Your task to perform on an android device: move an email to a new category in the gmail app Image 0: 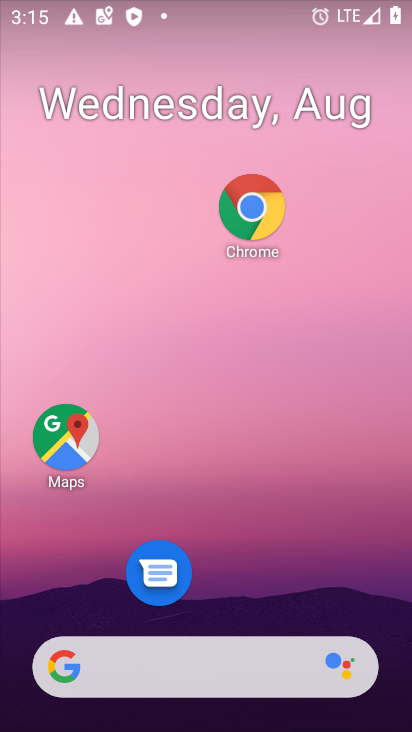
Step 0: drag from (227, 655) to (238, 79)
Your task to perform on an android device: move an email to a new category in the gmail app Image 1: 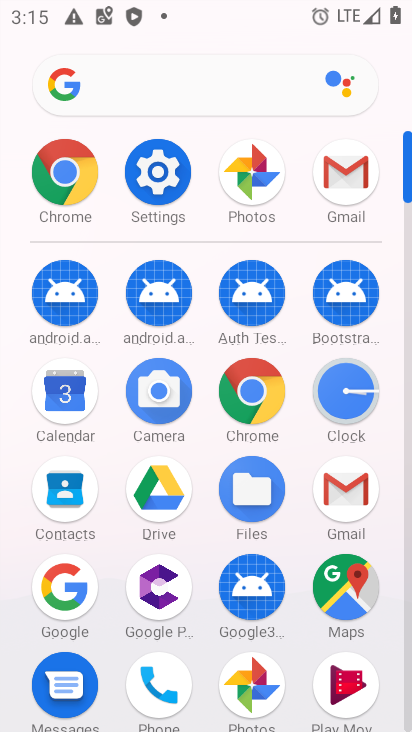
Step 1: click (339, 514)
Your task to perform on an android device: move an email to a new category in the gmail app Image 2: 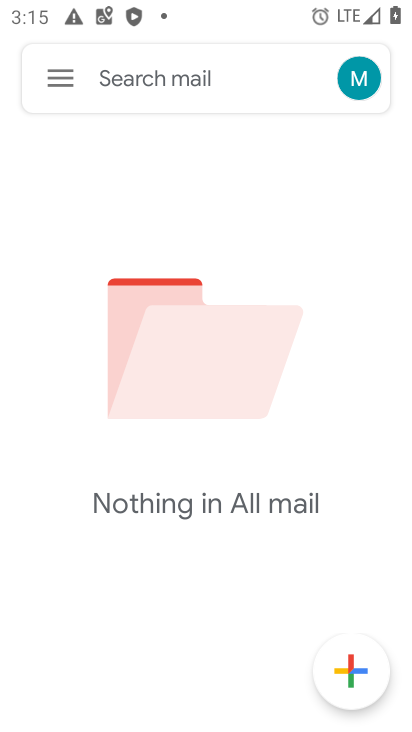
Step 2: task complete